Your task to perform on an android device: uninstall "Duolingo: language lessons" Image 0: 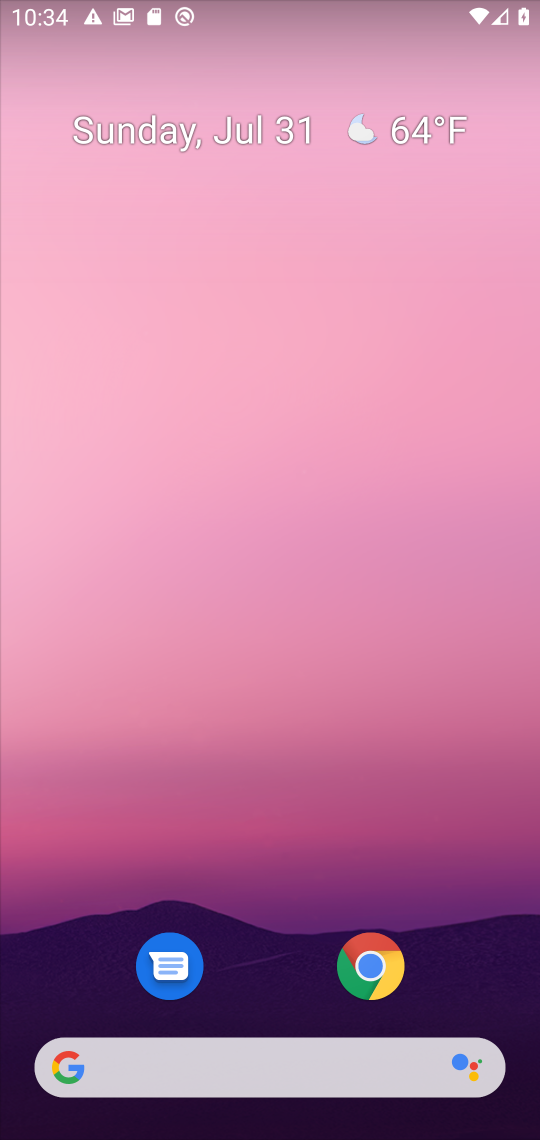
Step 0: click (209, 63)
Your task to perform on an android device: uninstall "Duolingo: language lessons" Image 1: 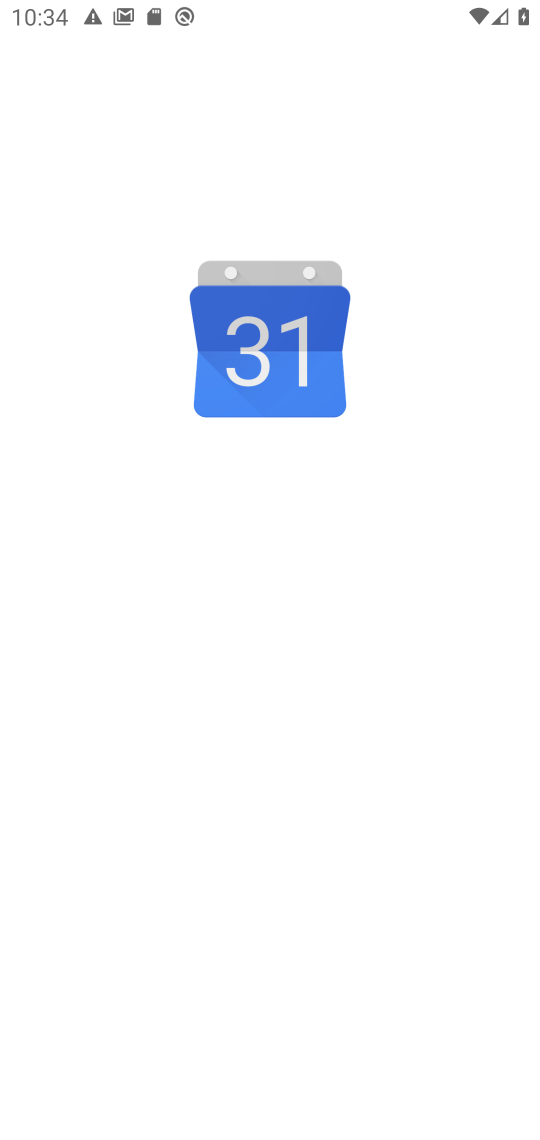
Step 1: drag from (266, 935) to (203, 219)
Your task to perform on an android device: uninstall "Duolingo: language lessons" Image 2: 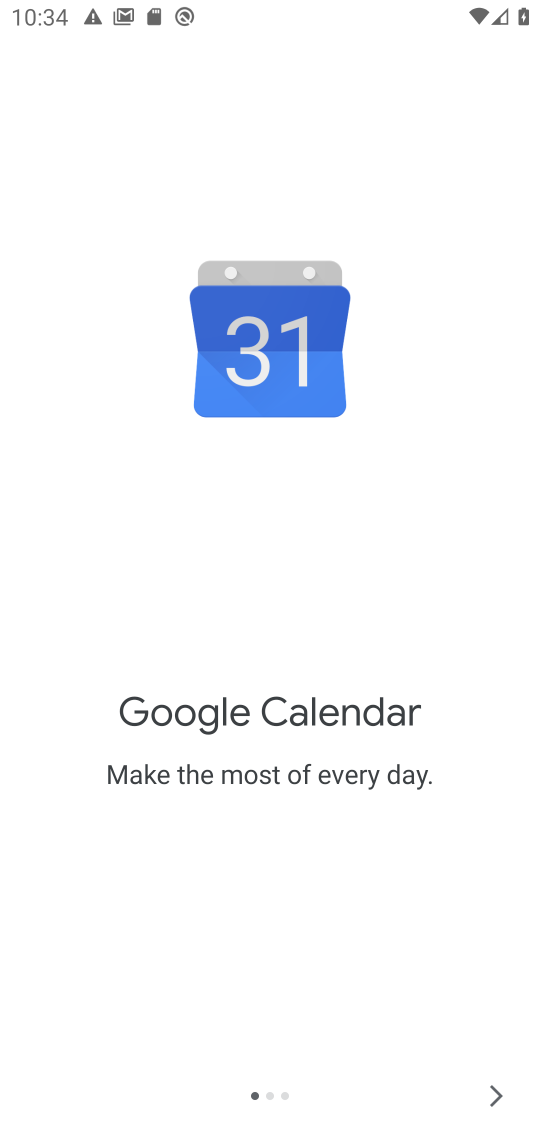
Step 2: press home button
Your task to perform on an android device: uninstall "Duolingo: language lessons" Image 3: 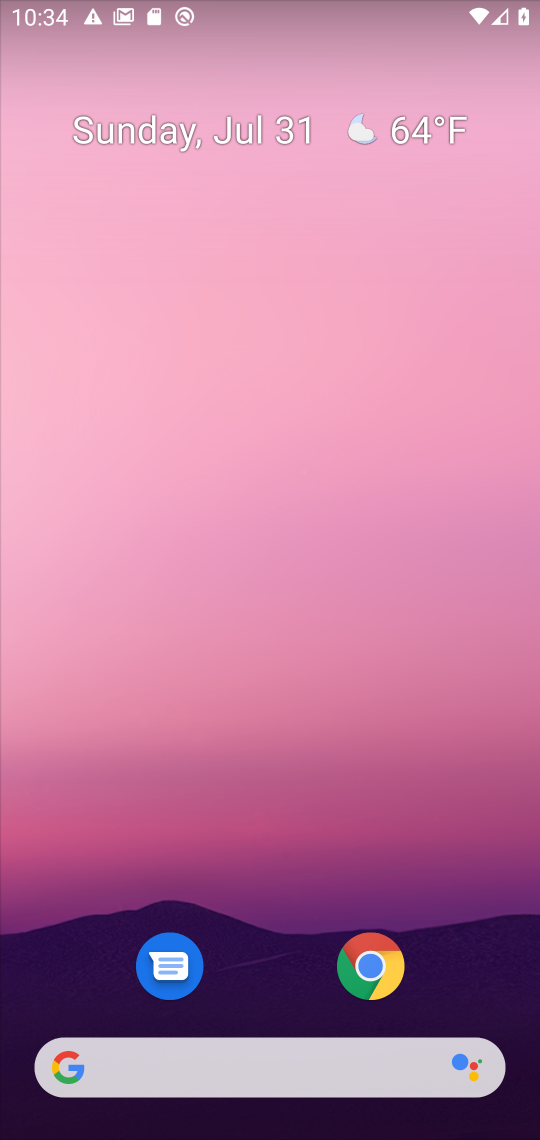
Step 3: drag from (255, 951) to (240, 5)
Your task to perform on an android device: uninstall "Duolingo: language lessons" Image 4: 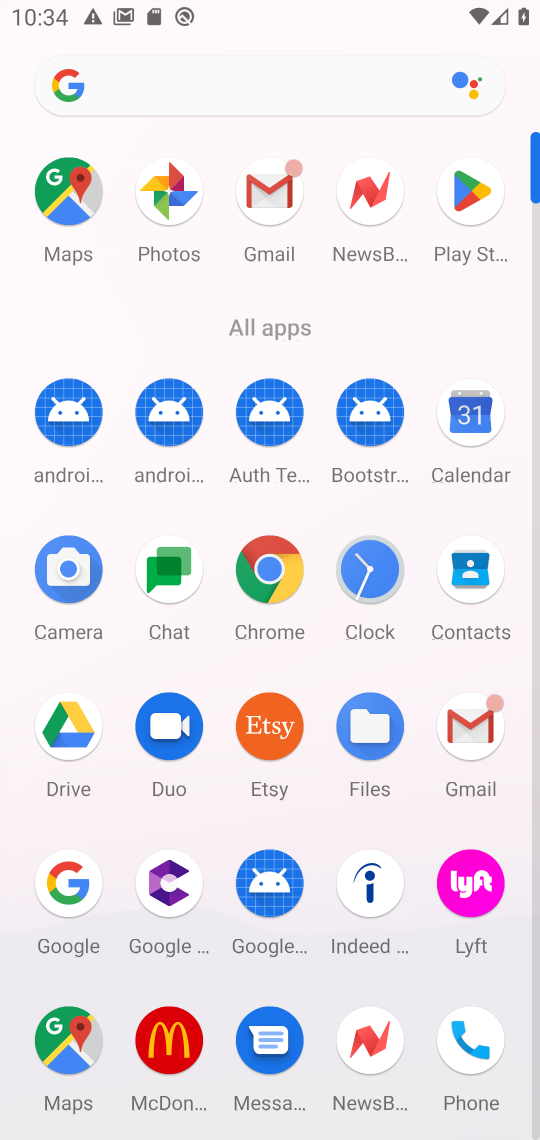
Step 4: click (475, 256)
Your task to perform on an android device: uninstall "Duolingo: language lessons" Image 5: 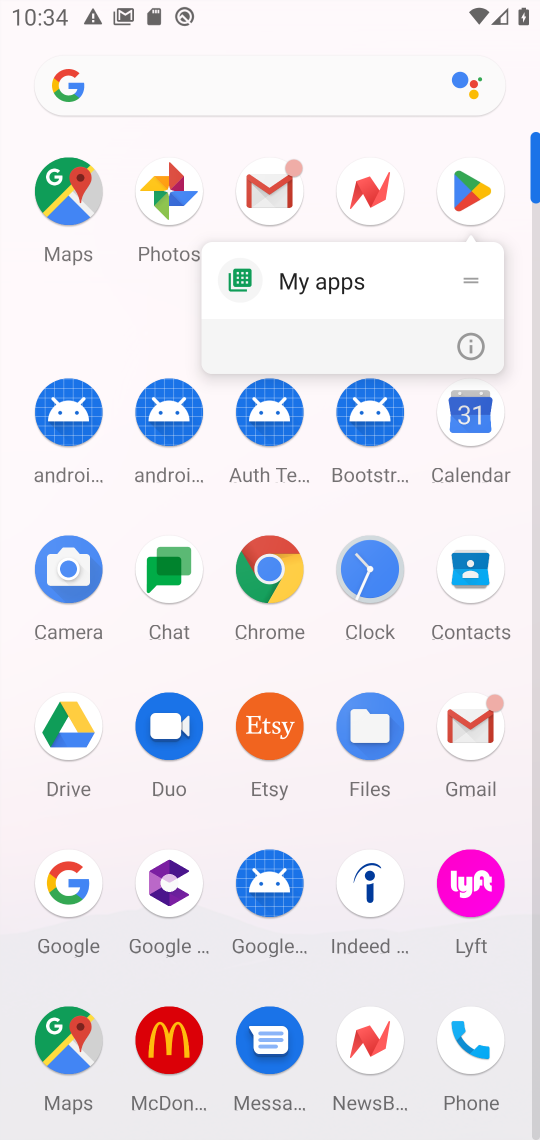
Step 5: click (464, 196)
Your task to perform on an android device: uninstall "Duolingo: language lessons" Image 6: 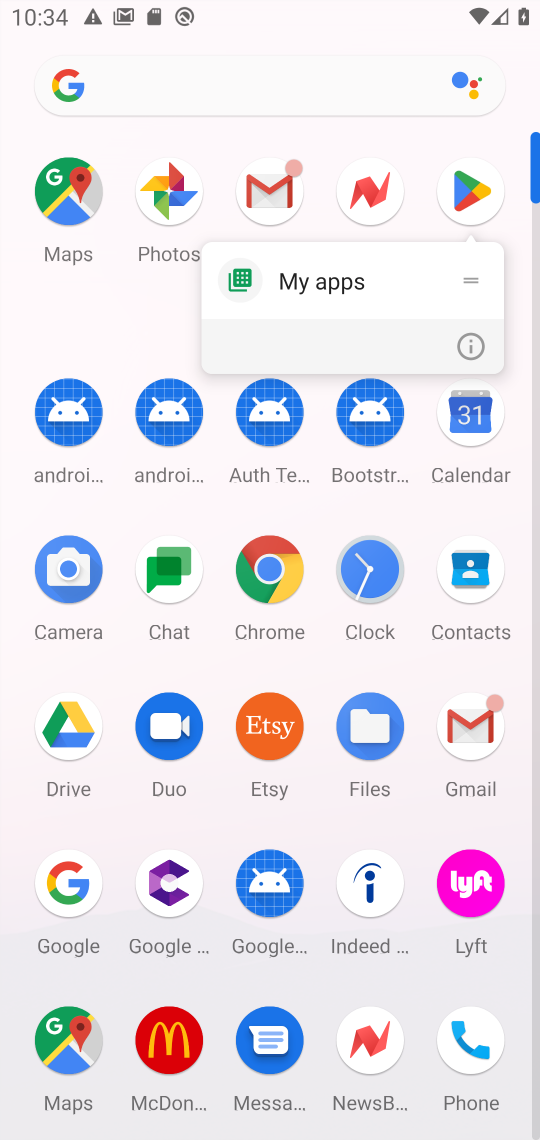
Step 6: click (465, 202)
Your task to perform on an android device: uninstall "Duolingo: language lessons" Image 7: 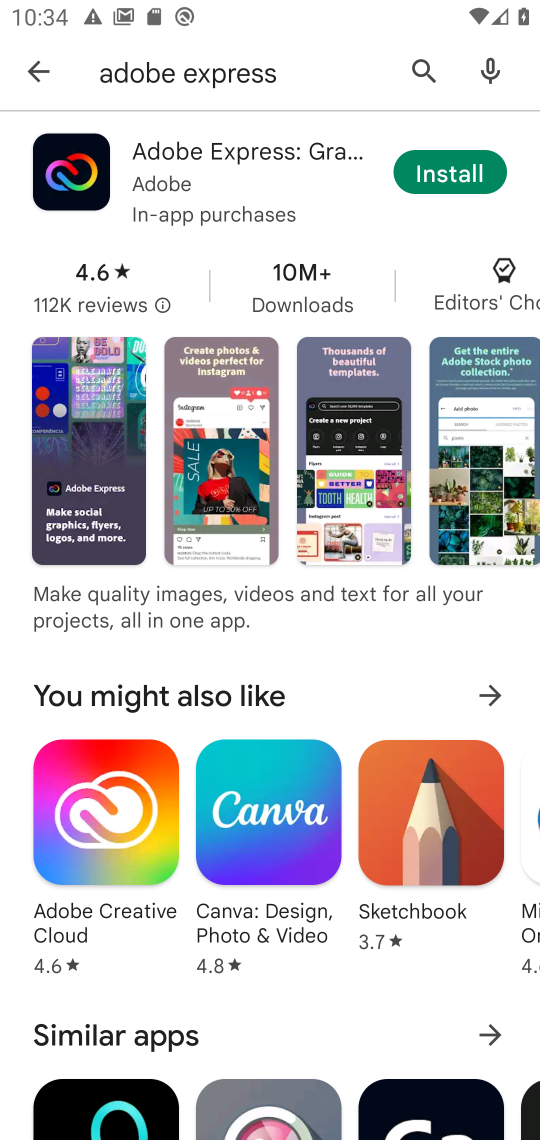
Step 7: click (226, 58)
Your task to perform on an android device: uninstall "Duolingo: language lessons" Image 8: 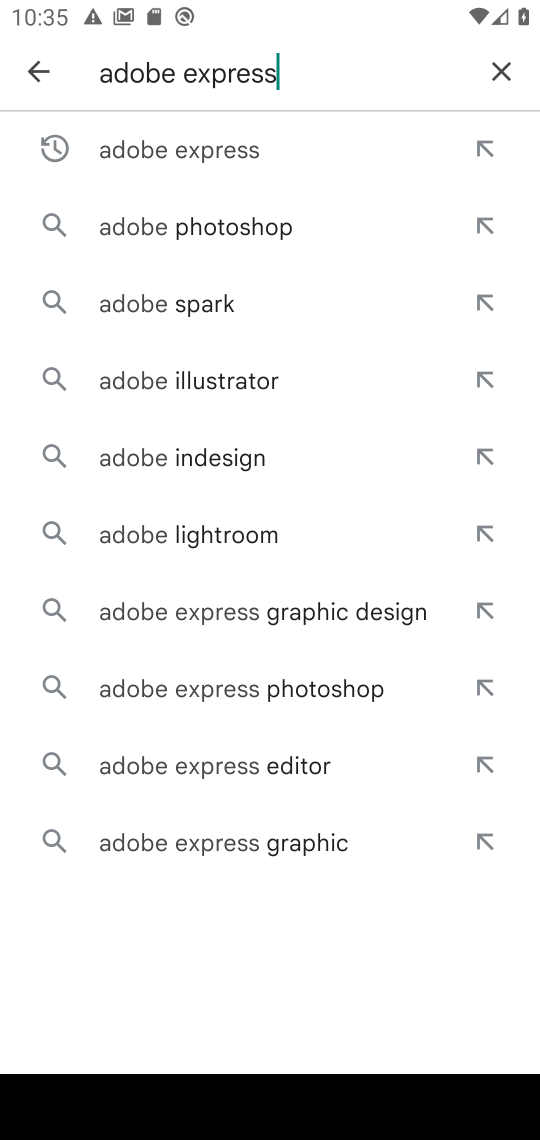
Step 8: click (503, 68)
Your task to perform on an android device: uninstall "Duolingo: language lessons" Image 9: 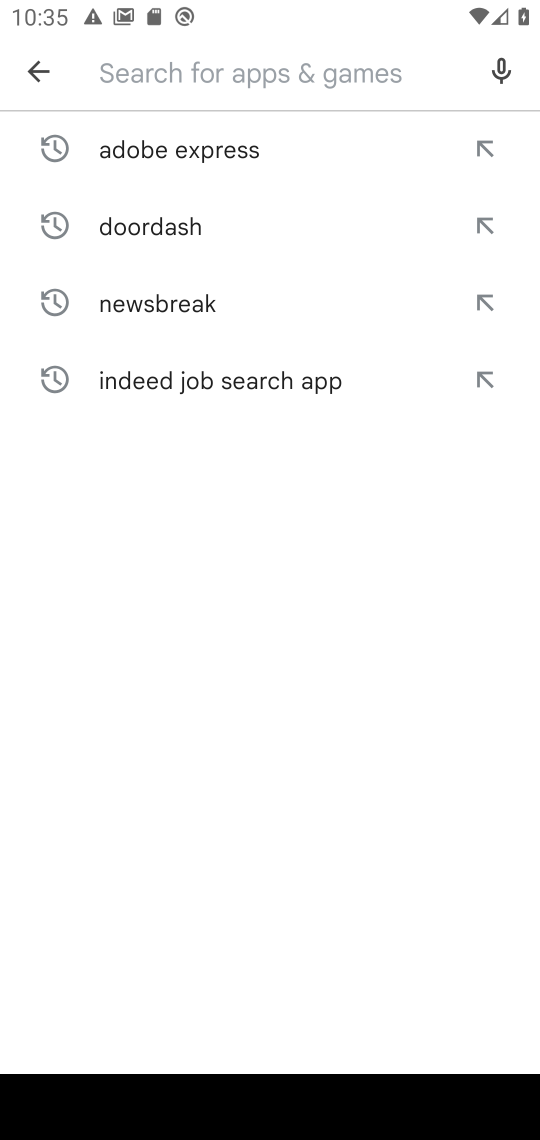
Step 9: type "duolingo"
Your task to perform on an android device: uninstall "Duolingo: language lessons" Image 10: 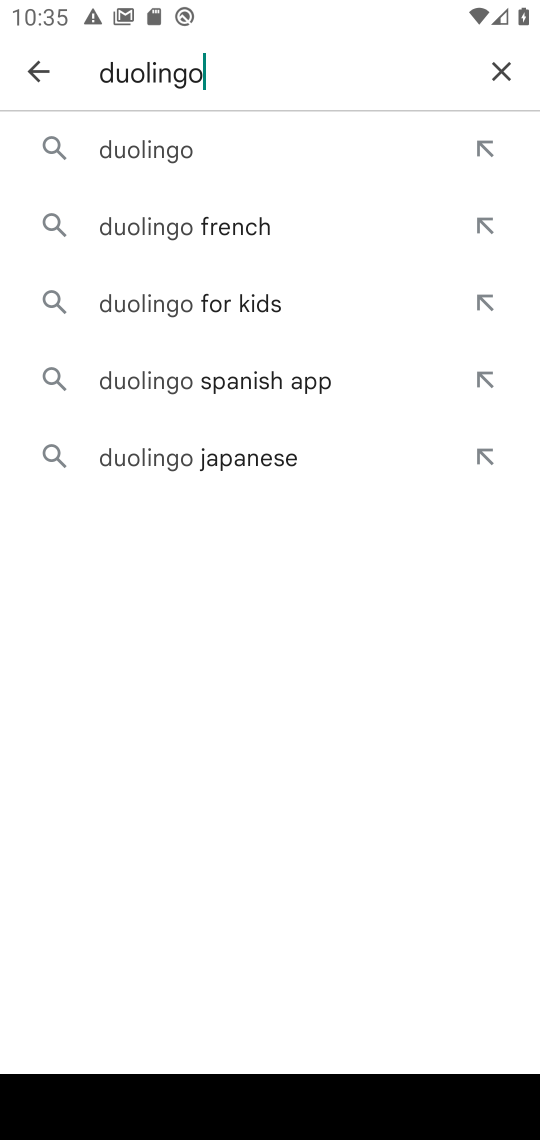
Step 10: click (135, 169)
Your task to perform on an android device: uninstall "Duolingo: language lessons" Image 11: 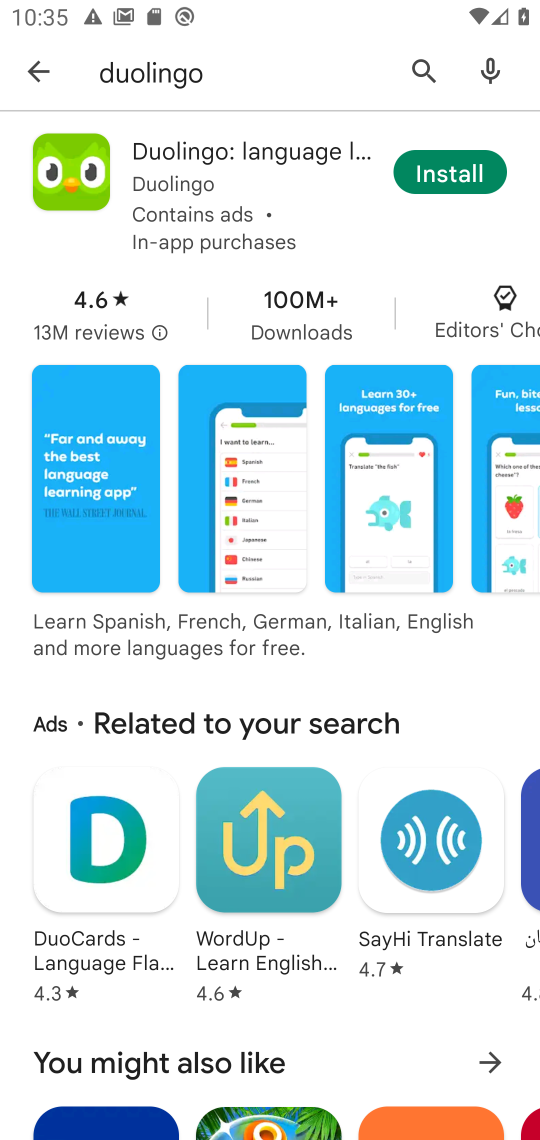
Step 11: task complete